Your task to perform on an android device: What's the weather going to be tomorrow? Image 0: 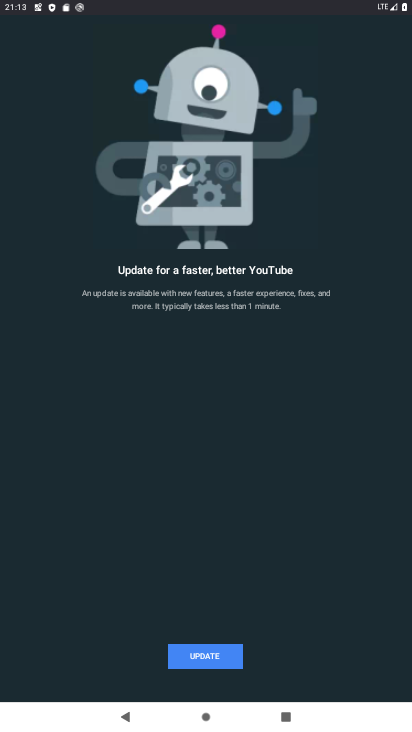
Step 0: press home button
Your task to perform on an android device: What's the weather going to be tomorrow? Image 1: 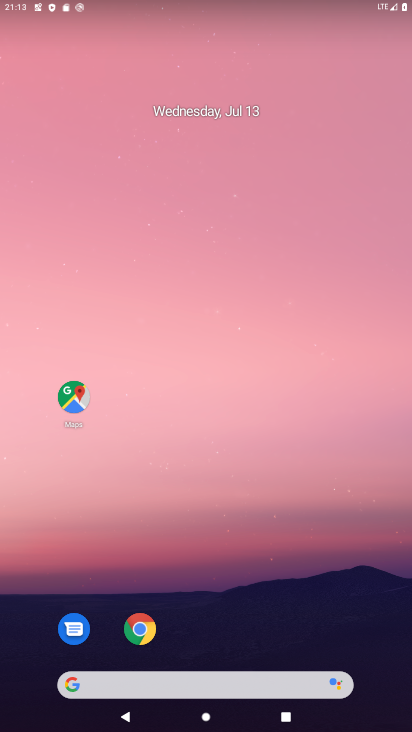
Step 1: drag from (244, 610) to (276, 204)
Your task to perform on an android device: What's the weather going to be tomorrow? Image 2: 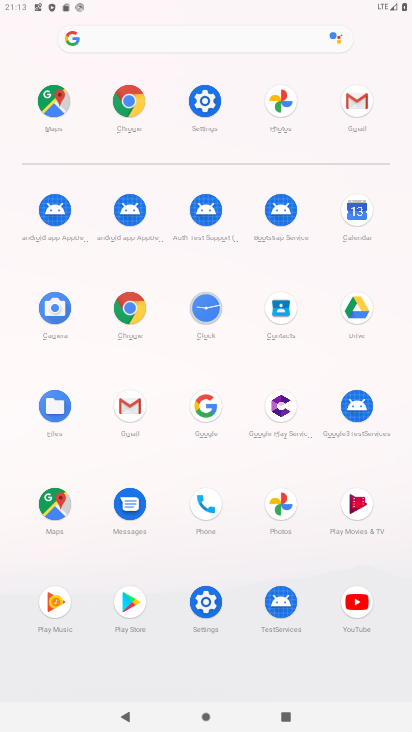
Step 2: click (129, 299)
Your task to perform on an android device: What's the weather going to be tomorrow? Image 3: 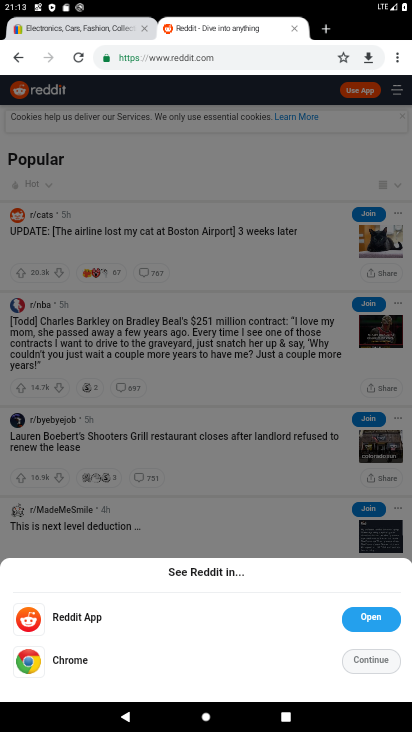
Step 3: click (217, 60)
Your task to perform on an android device: What's the weather going to be tomorrow? Image 4: 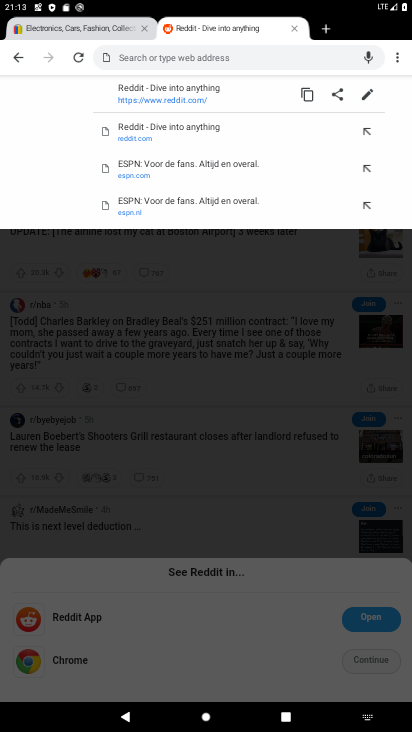
Step 4: type "What's the weather going to be tomorrow?"
Your task to perform on an android device: What's the weather going to be tomorrow? Image 5: 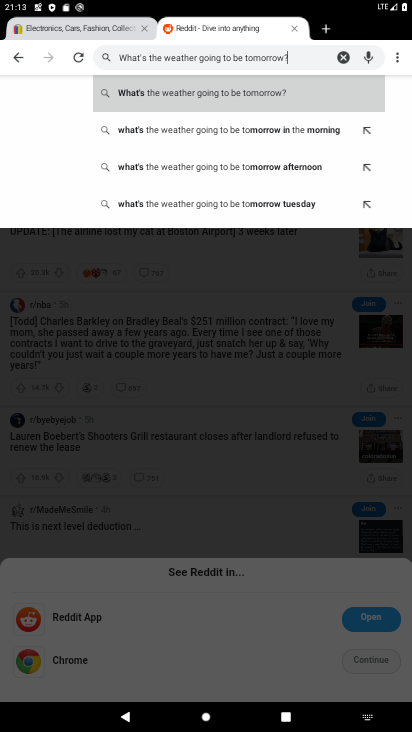
Step 5: click (204, 91)
Your task to perform on an android device: What's the weather going to be tomorrow? Image 6: 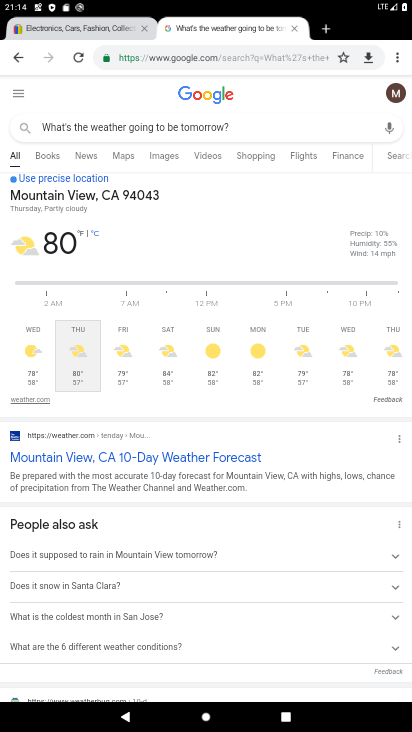
Step 6: task complete